Your task to perform on an android device: Go to privacy settings Image 0: 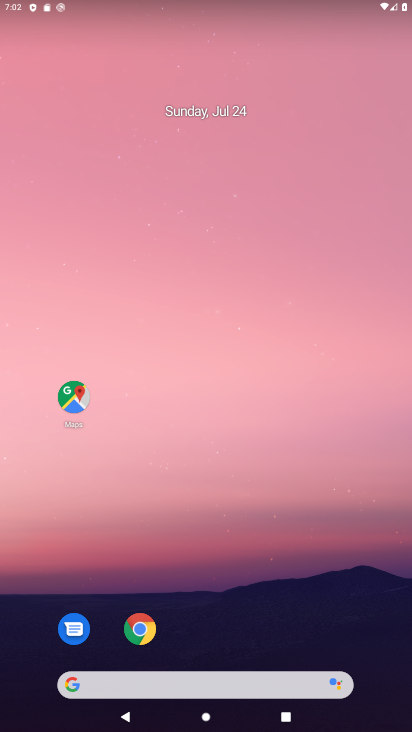
Step 0: drag from (364, 635) to (241, 3)
Your task to perform on an android device: Go to privacy settings Image 1: 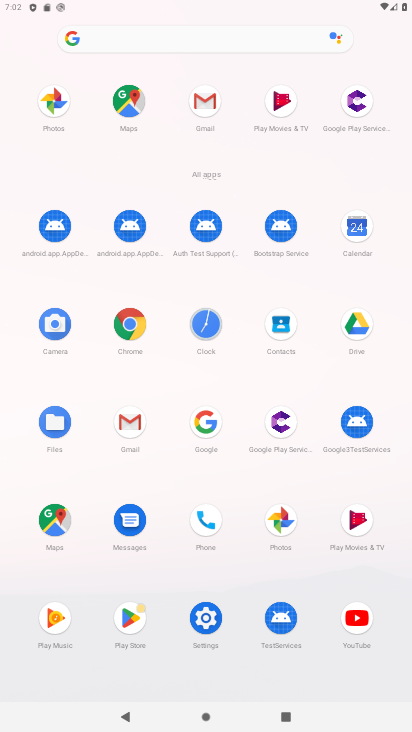
Step 1: click (181, 617)
Your task to perform on an android device: Go to privacy settings Image 2: 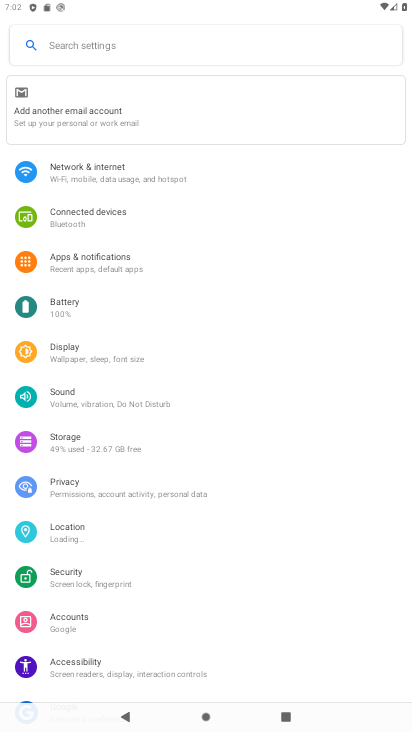
Step 2: click (102, 494)
Your task to perform on an android device: Go to privacy settings Image 3: 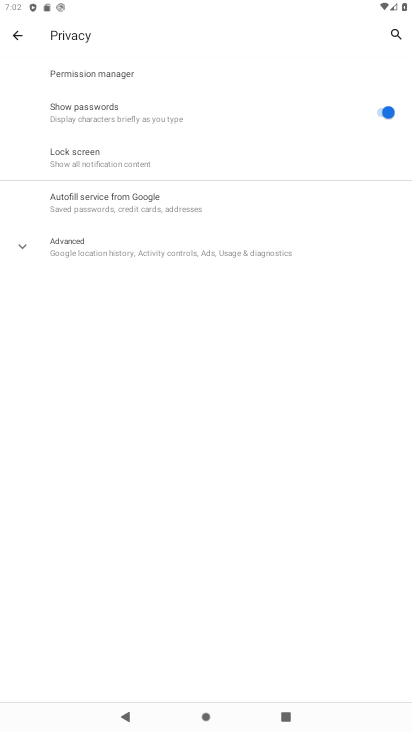
Step 3: task complete